Your task to perform on an android device: Go to Maps Image 0: 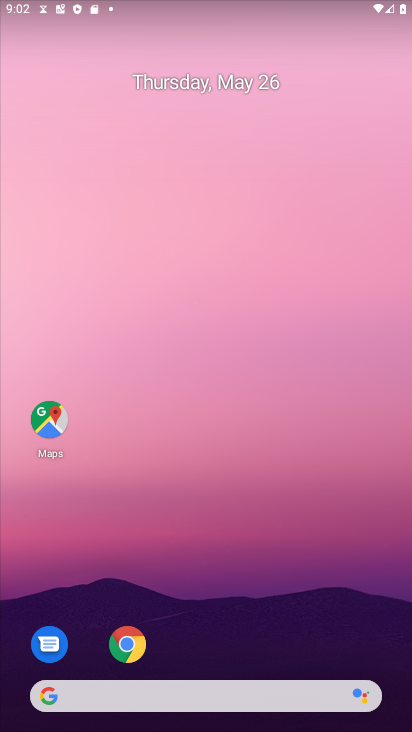
Step 0: click (33, 437)
Your task to perform on an android device: Go to Maps Image 1: 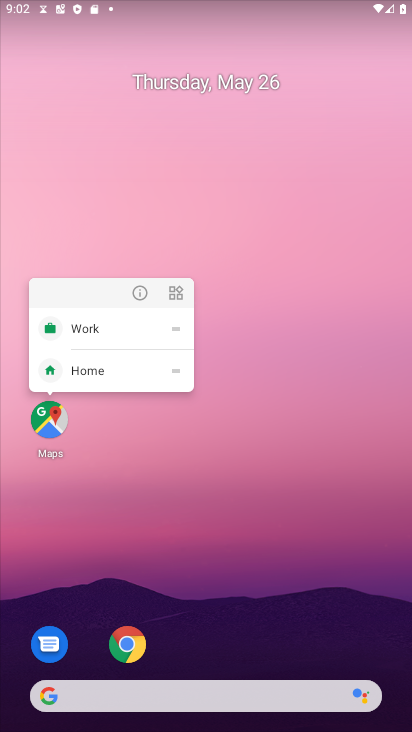
Step 1: click (37, 418)
Your task to perform on an android device: Go to Maps Image 2: 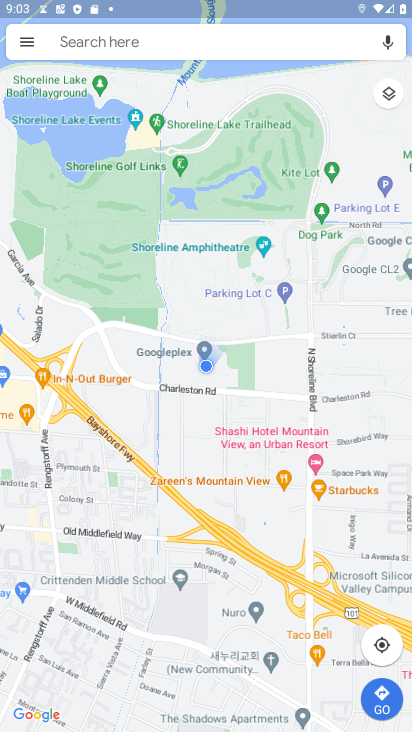
Step 2: task complete